Your task to perform on an android device: change keyboard looks Image 0: 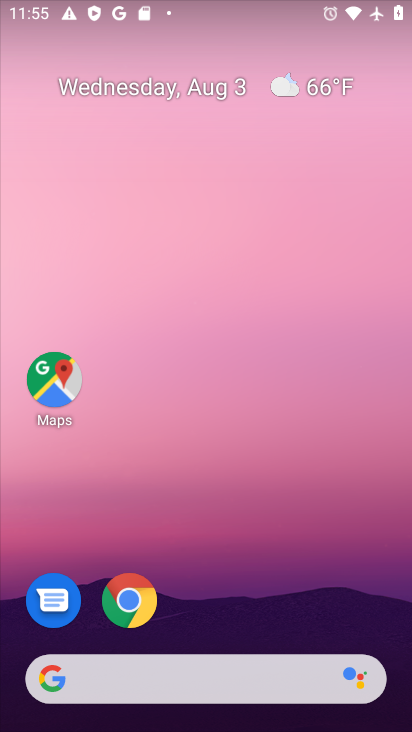
Step 0: drag from (237, 635) to (406, 546)
Your task to perform on an android device: change keyboard looks Image 1: 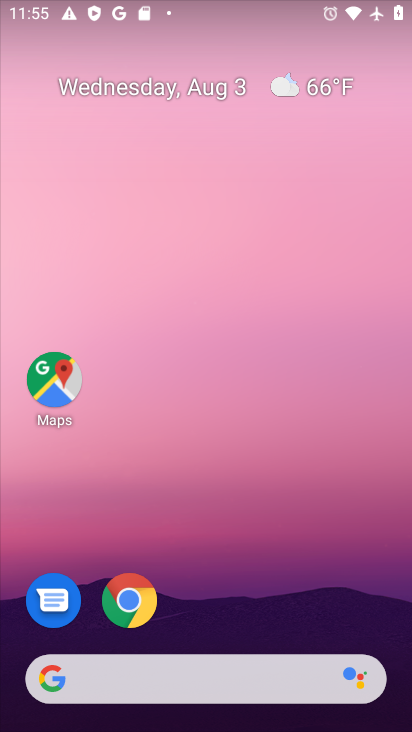
Step 1: click (206, 602)
Your task to perform on an android device: change keyboard looks Image 2: 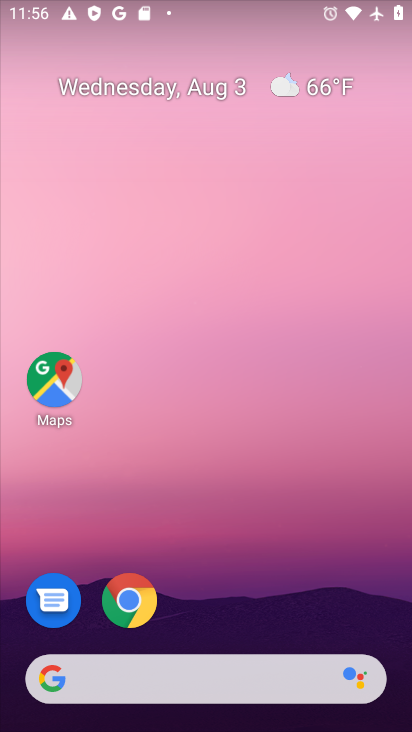
Step 2: drag from (194, 640) to (220, 19)
Your task to perform on an android device: change keyboard looks Image 3: 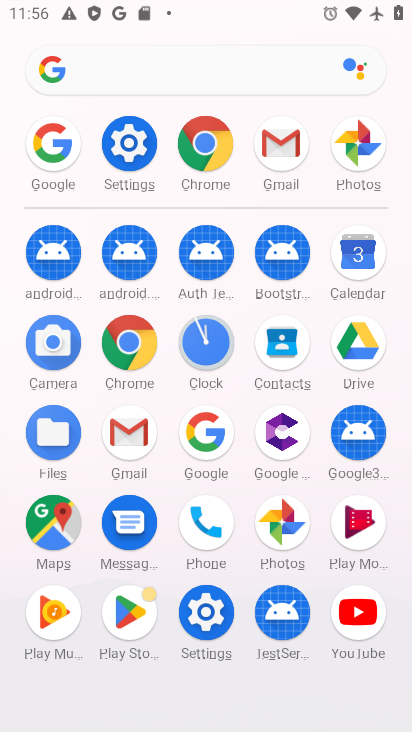
Step 3: click (180, 604)
Your task to perform on an android device: change keyboard looks Image 4: 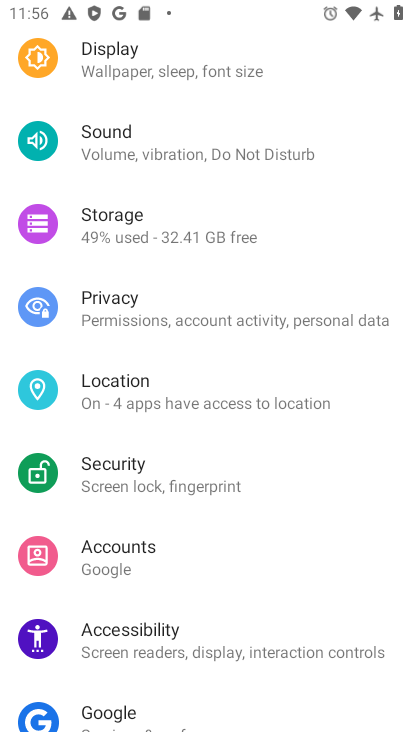
Step 4: drag from (180, 604) to (211, 164)
Your task to perform on an android device: change keyboard looks Image 5: 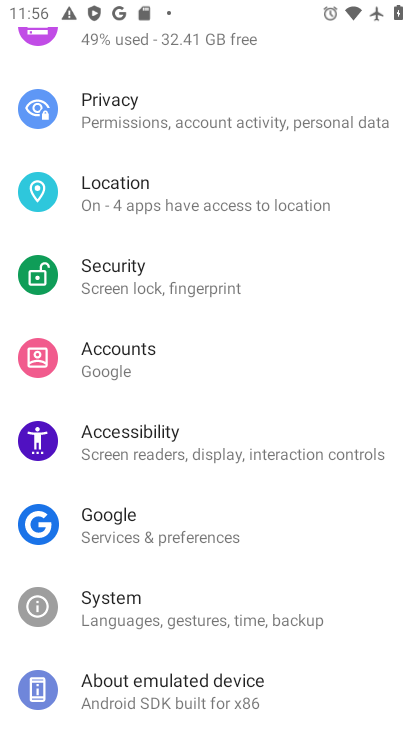
Step 5: click (152, 605)
Your task to perform on an android device: change keyboard looks Image 6: 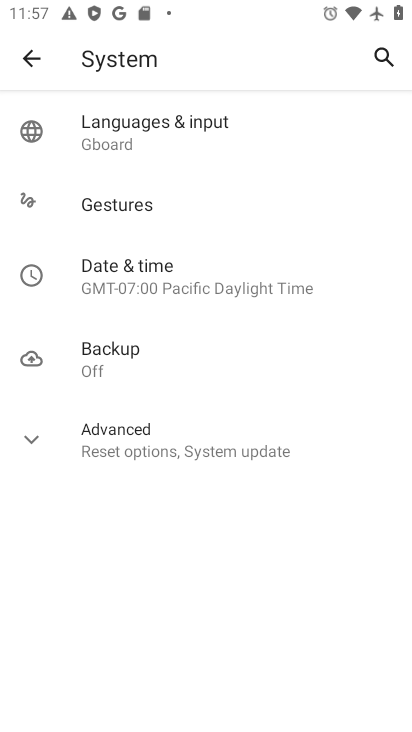
Step 6: click (143, 469)
Your task to perform on an android device: change keyboard looks Image 7: 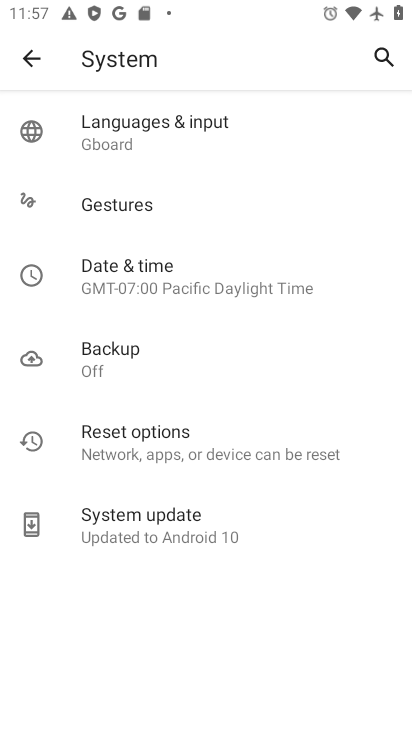
Step 7: click (110, 114)
Your task to perform on an android device: change keyboard looks Image 8: 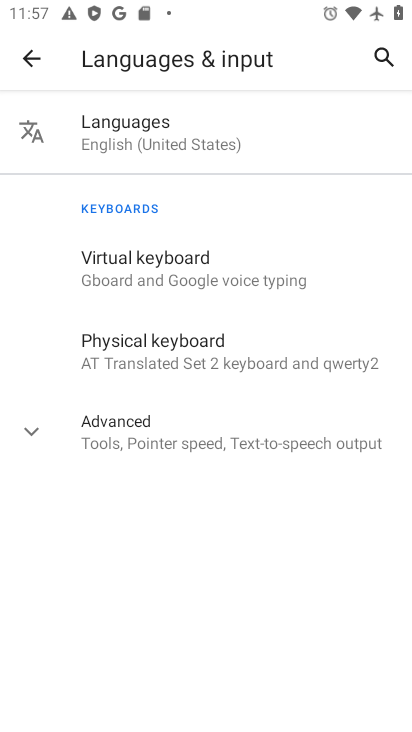
Step 8: click (133, 282)
Your task to perform on an android device: change keyboard looks Image 9: 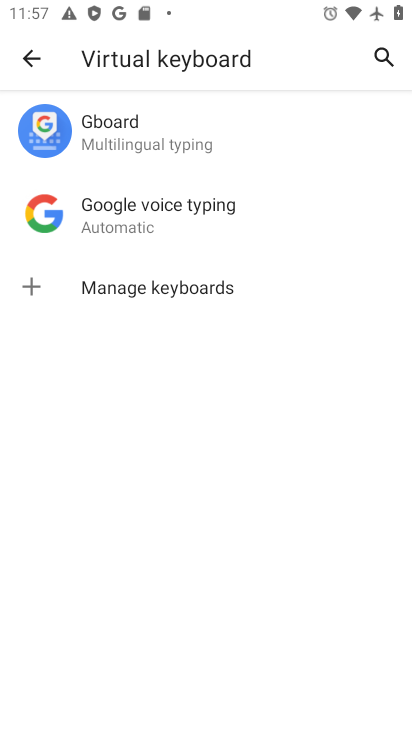
Step 9: click (157, 130)
Your task to perform on an android device: change keyboard looks Image 10: 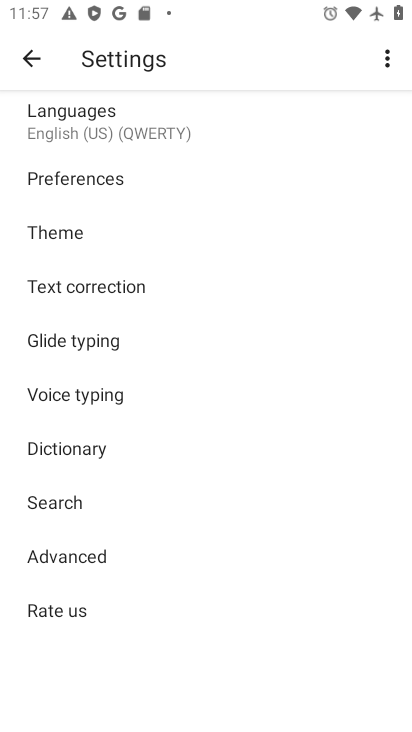
Step 10: click (95, 115)
Your task to perform on an android device: change keyboard looks Image 11: 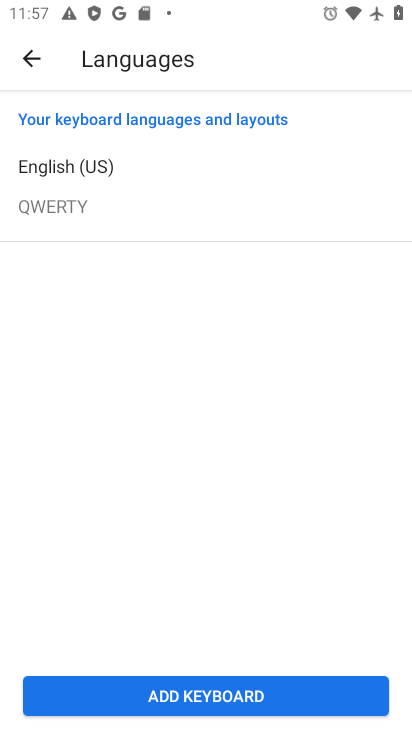
Step 11: task complete